Your task to perform on an android device: turn on notifications settings in the gmail app Image 0: 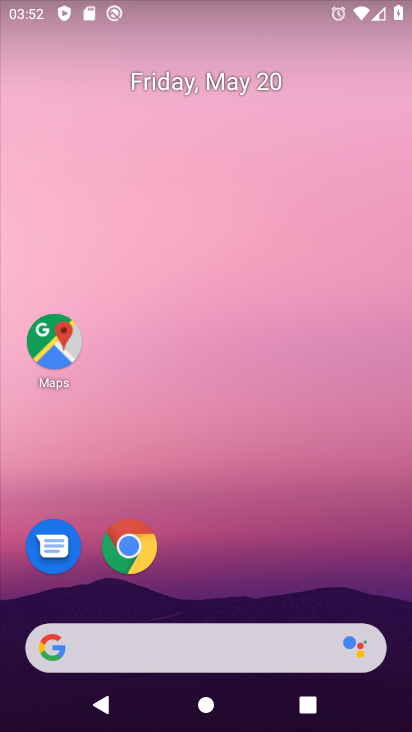
Step 0: drag from (232, 564) to (287, 111)
Your task to perform on an android device: turn on notifications settings in the gmail app Image 1: 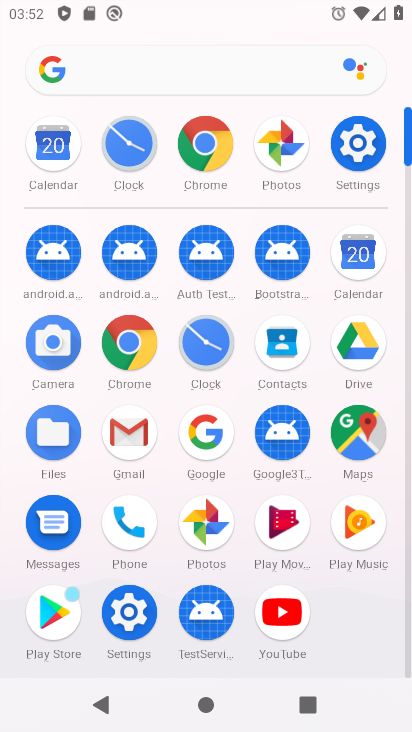
Step 1: click (141, 429)
Your task to perform on an android device: turn on notifications settings in the gmail app Image 2: 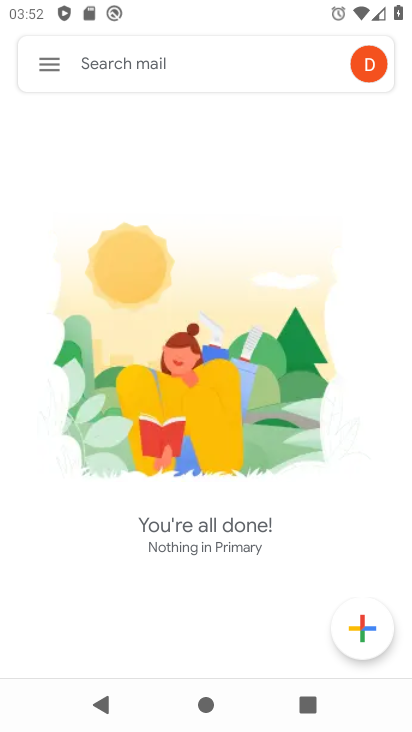
Step 2: click (49, 63)
Your task to perform on an android device: turn on notifications settings in the gmail app Image 3: 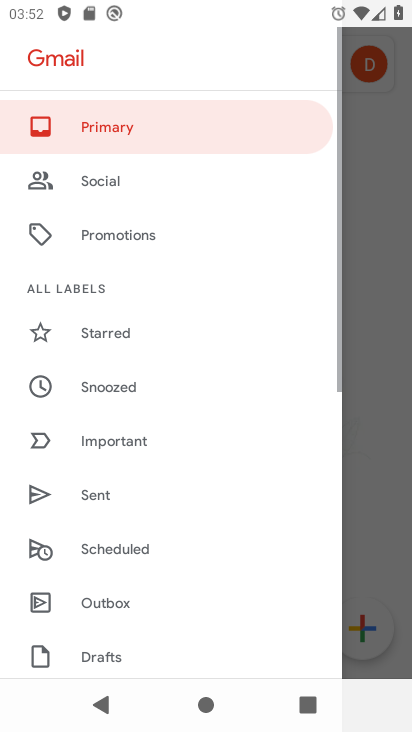
Step 3: drag from (183, 616) to (266, 123)
Your task to perform on an android device: turn on notifications settings in the gmail app Image 4: 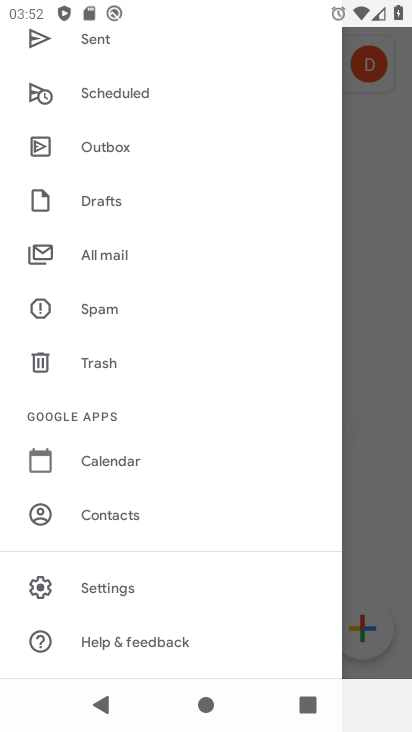
Step 4: click (113, 591)
Your task to perform on an android device: turn on notifications settings in the gmail app Image 5: 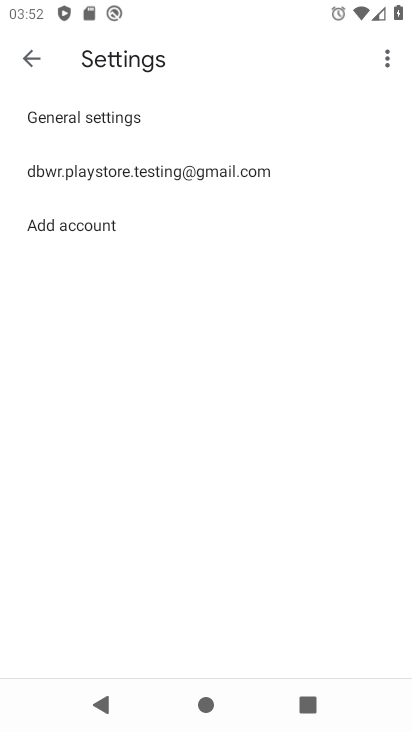
Step 5: click (202, 167)
Your task to perform on an android device: turn on notifications settings in the gmail app Image 6: 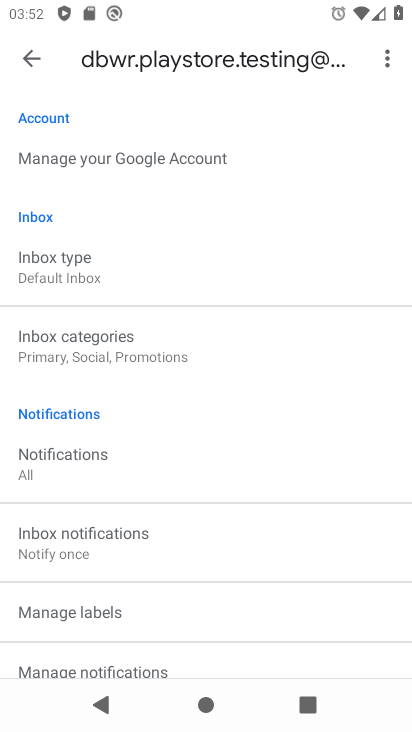
Step 6: click (114, 671)
Your task to perform on an android device: turn on notifications settings in the gmail app Image 7: 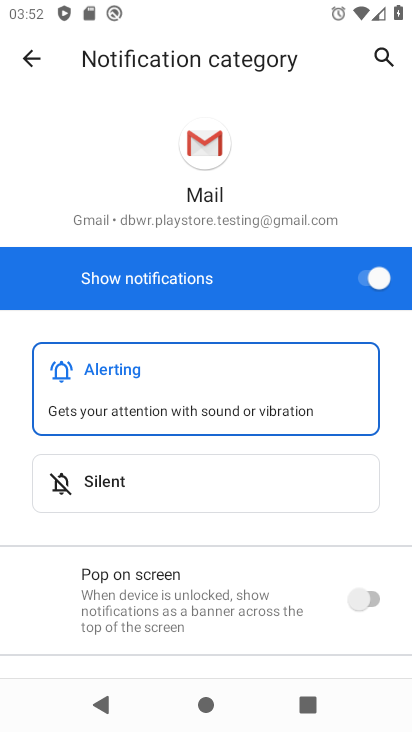
Step 7: task complete